Your task to perform on an android device: Open network settings Image 0: 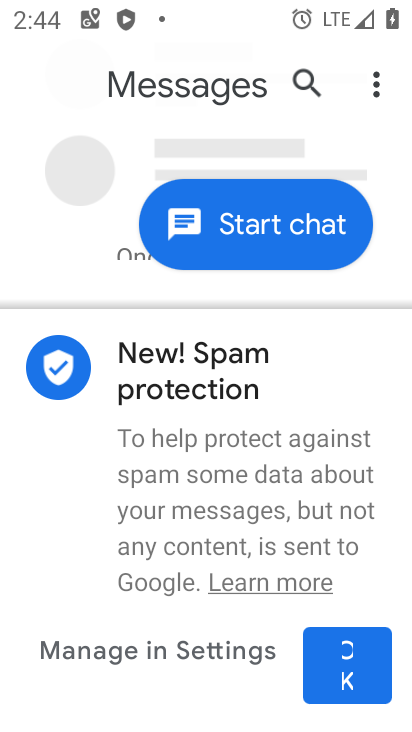
Step 0: press home button
Your task to perform on an android device: Open network settings Image 1: 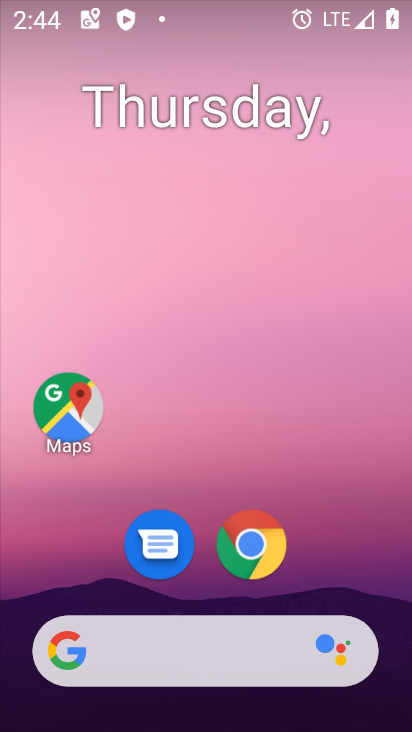
Step 1: drag from (338, 597) to (312, 345)
Your task to perform on an android device: Open network settings Image 2: 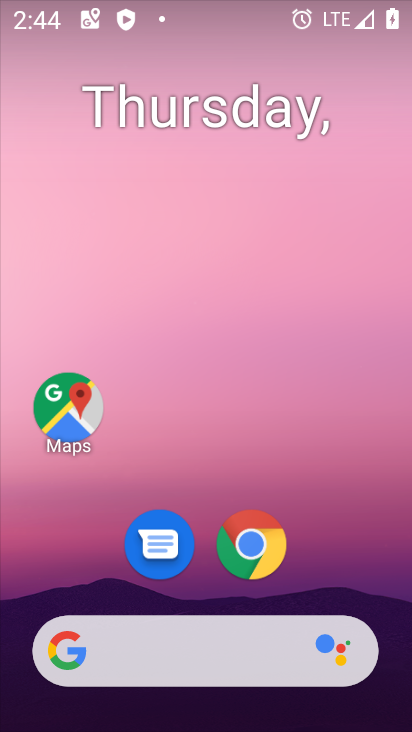
Step 2: drag from (335, 563) to (330, 253)
Your task to perform on an android device: Open network settings Image 3: 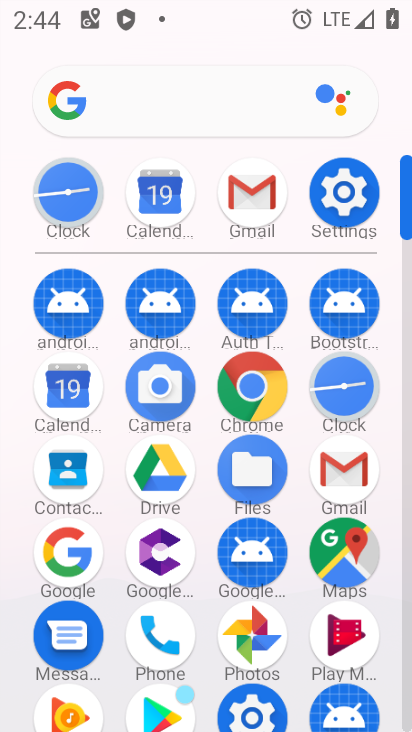
Step 3: click (323, 190)
Your task to perform on an android device: Open network settings Image 4: 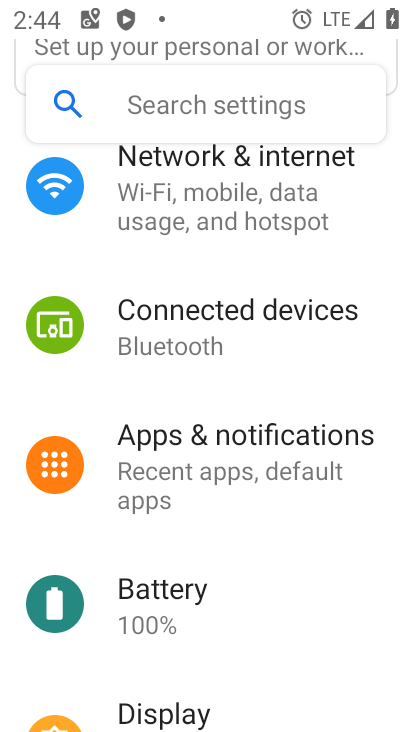
Step 4: click (193, 185)
Your task to perform on an android device: Open network settings Image 5: 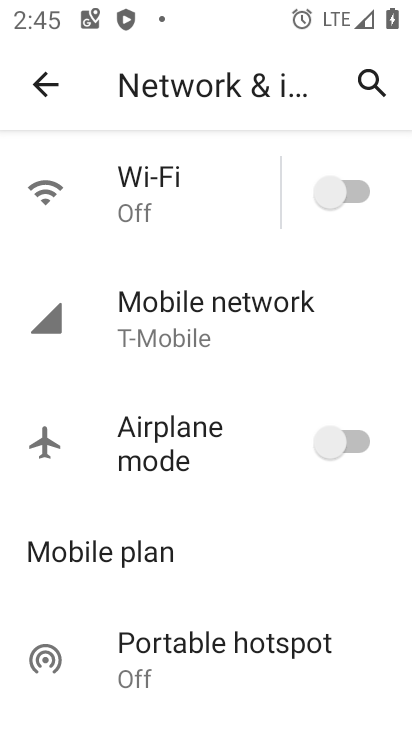
Step 5: click (258, 309)
Your task to perform on an android device: Open network settings Image 6: 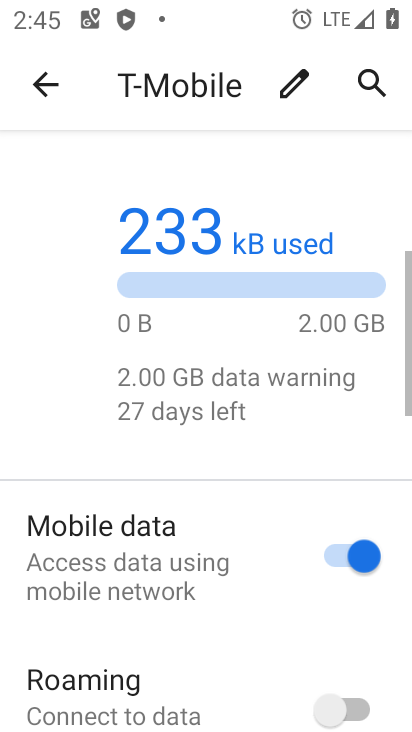
Step 6: task complete